Your task to perform on an android device: Open Chrome and go to settings Image 0: 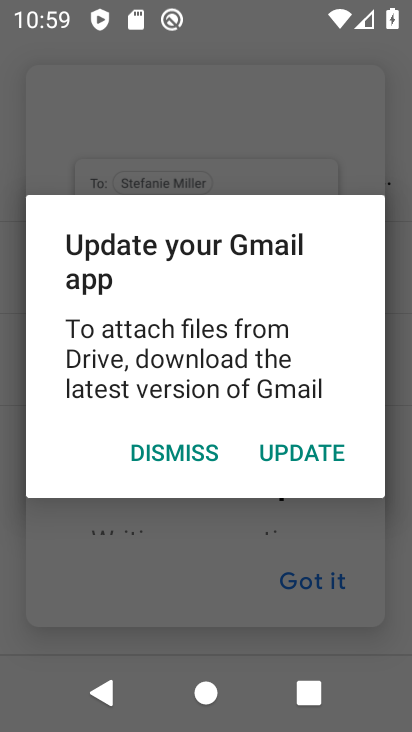
Step 0: press home button
Your task to perform on an android device: Open Chrome and go to settings Image 1: 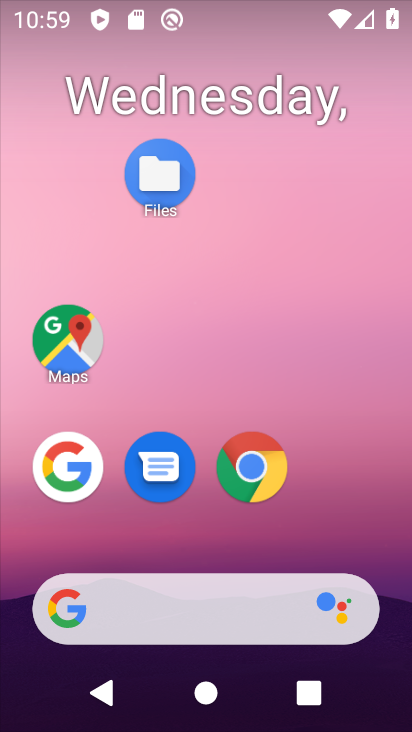
Step 1: click (242, 491)
Your task to perform on an android device: Open Chrome and go to settings Image 2: 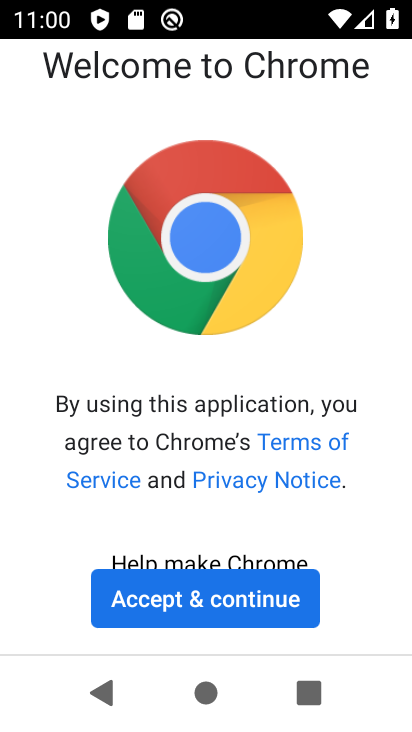
Step 2: click (252, 603)
Your task to perform on an android device: Open Chrome and go to settings Image 3: 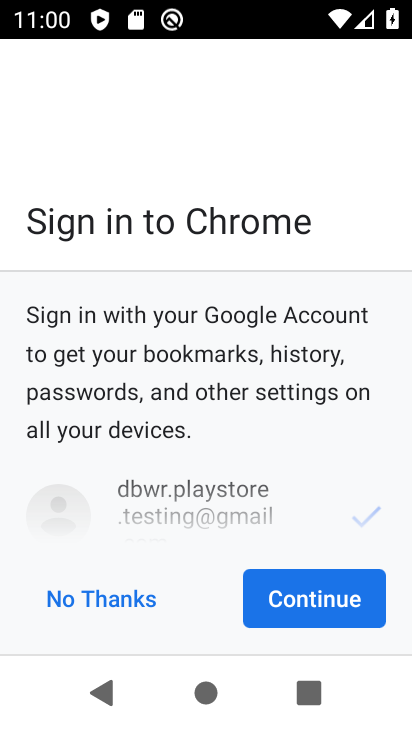
Step 3: click (279, 606)
Your task to perform on an android device: Open Chrome and go to settings Image 4: 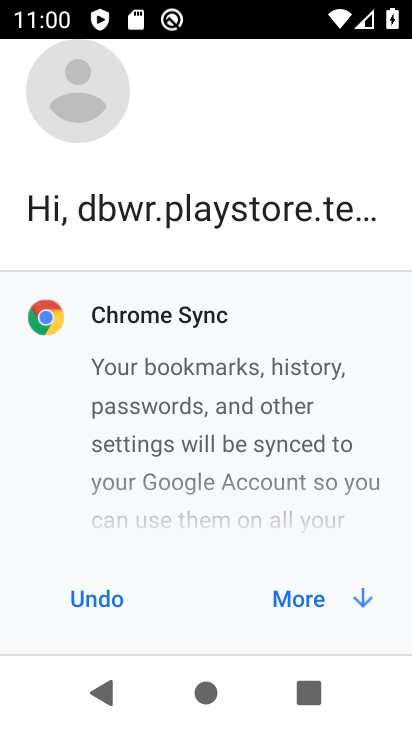
Step 4: click (306, 598)
Your task to perform on an android device: Open Chrome and go to settings Image 5: 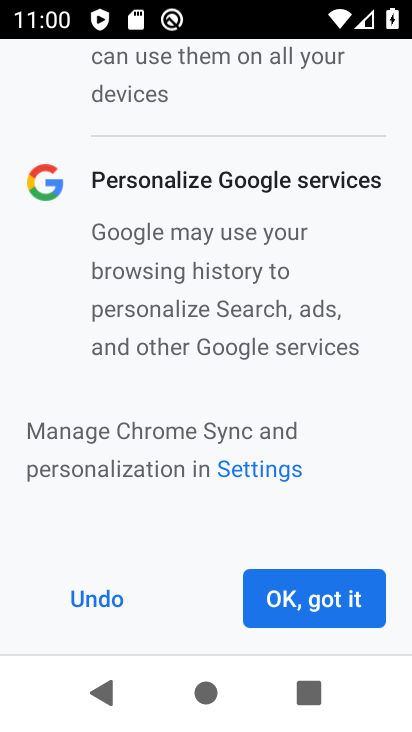
Step 5: click (358, 592)
Your task to perform on an android device: Open Chrome and go to settings Image 6: 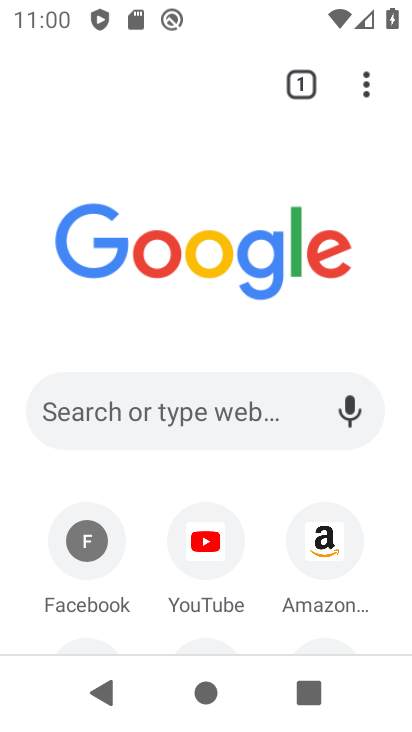
Step 6: click (362, 92)
Your task to perform on an android device: Open Chrome and go to settings Image 7: 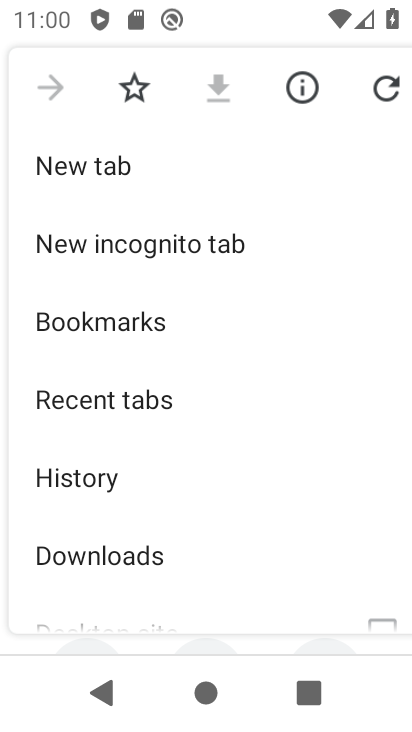
Step 7: drag from (135, 502) to (91, 70)
Your task to perform on an android device: Open Chrome and go to settings Image 8: 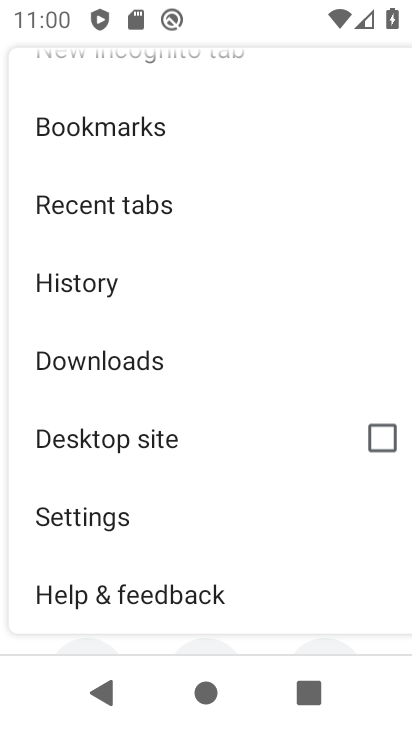
Step 8: click (80, 511)
Your task to perform on an android device: Open Chrome and go to settings Image 9: 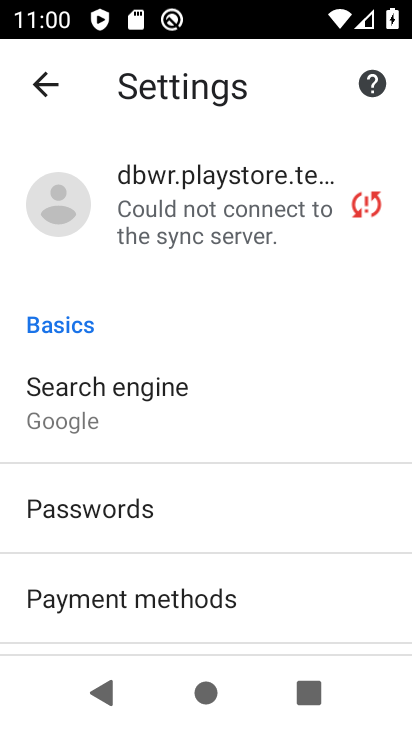
Step 9: task complete